Your task to perform on an android device: Search for Mexican restaurants on Maps Image 0: 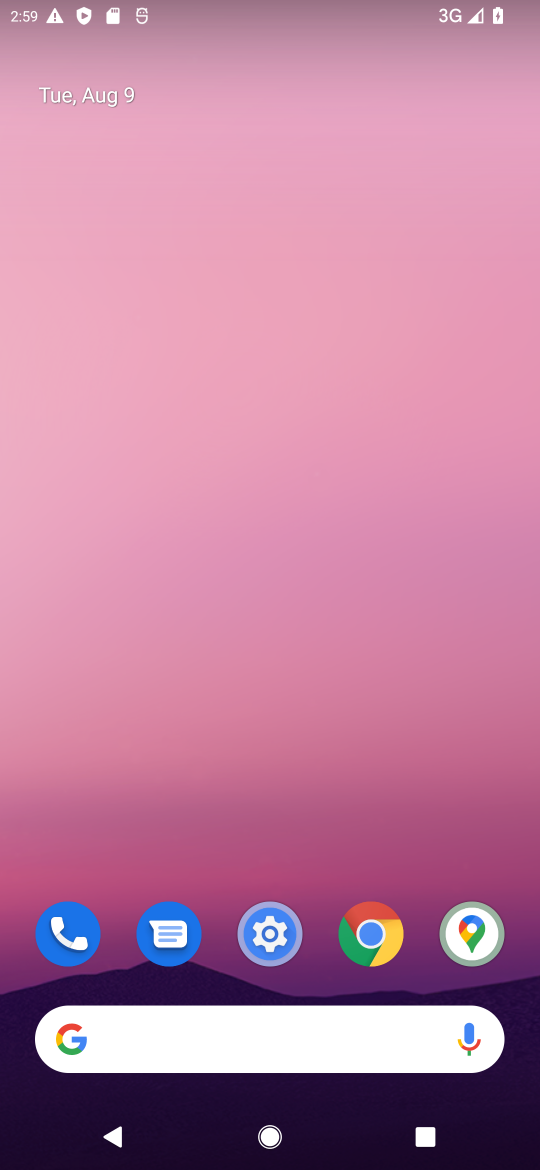
Step 0: click (463, 942)
Your task to perform on an android device: Search for Mexican restaurants on Maps Image 1: 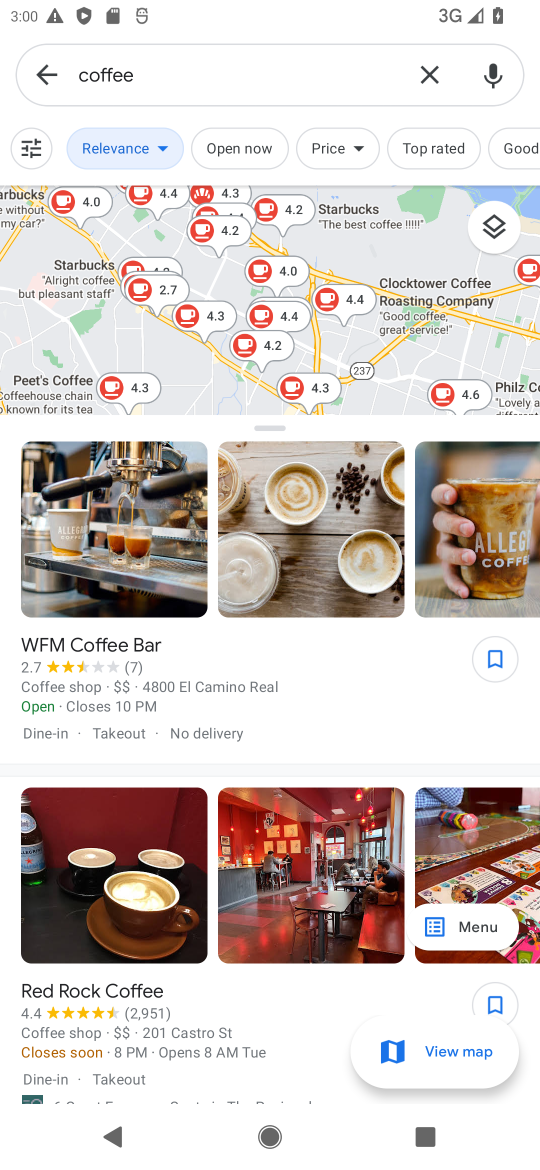
Step 1: click (409, 59)
Your task to perform on an android device: Search for Mexican restaurants on Maps Image 2: 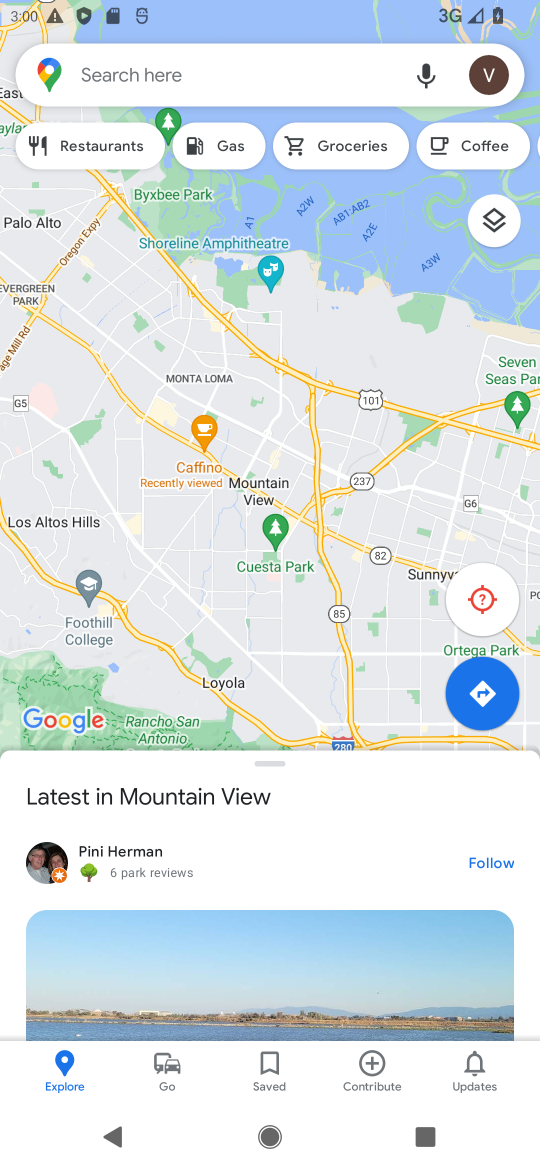
Step 2: click (253, 93)
Your task to perform on an android device: Search for Mexican restaurants on Maps Image 3: 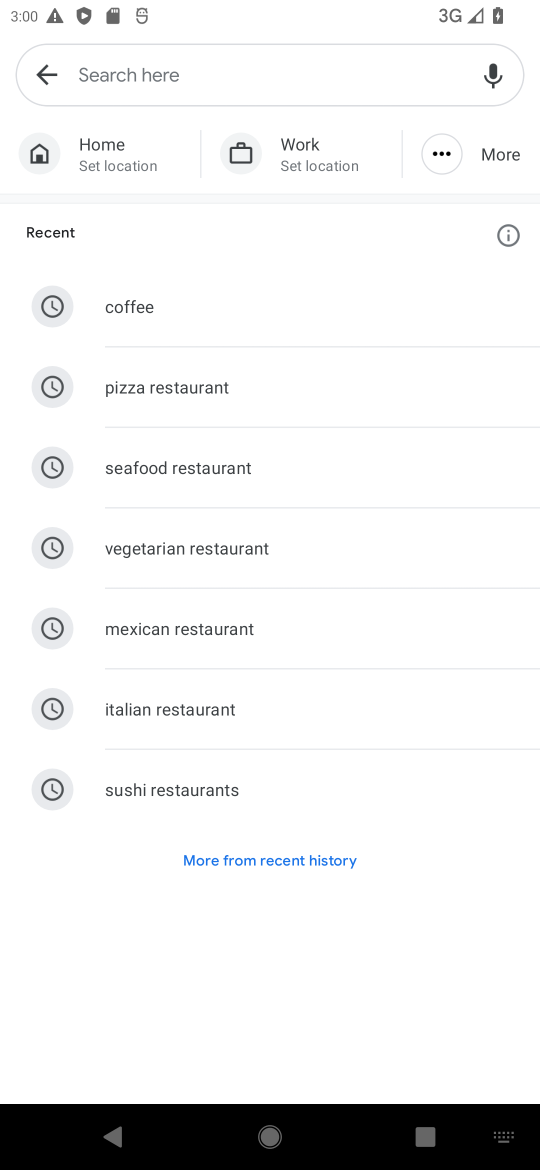
Step 3: click (218, 657)
Your task to perform on an android device: Search for Mexican restaurants on Maps Image 4: 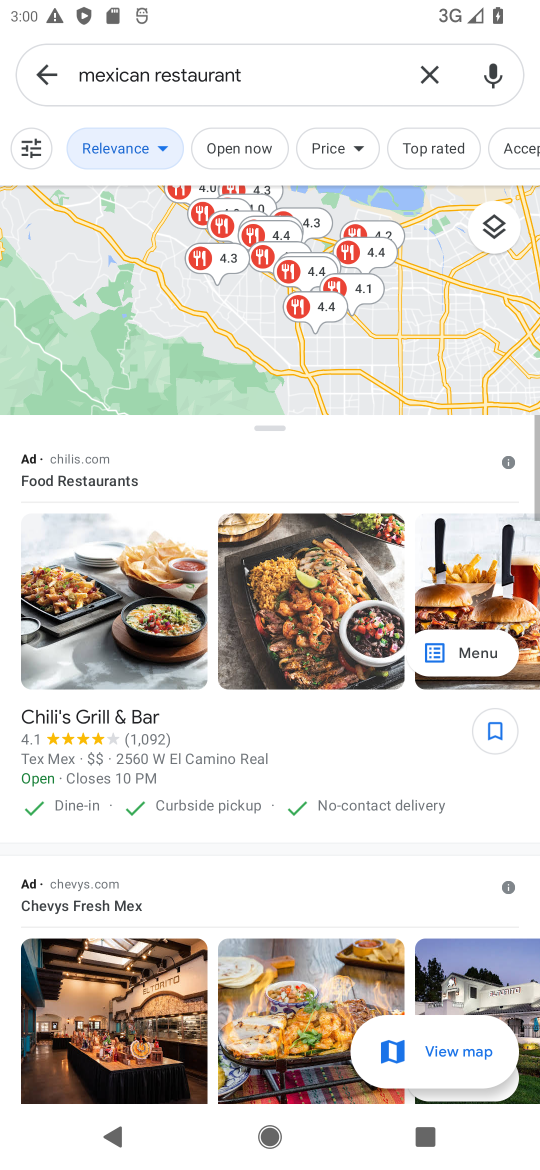
Step 4: task complete